Your task to perform on an android device: Open Chrome and go to the settings page Image 0: 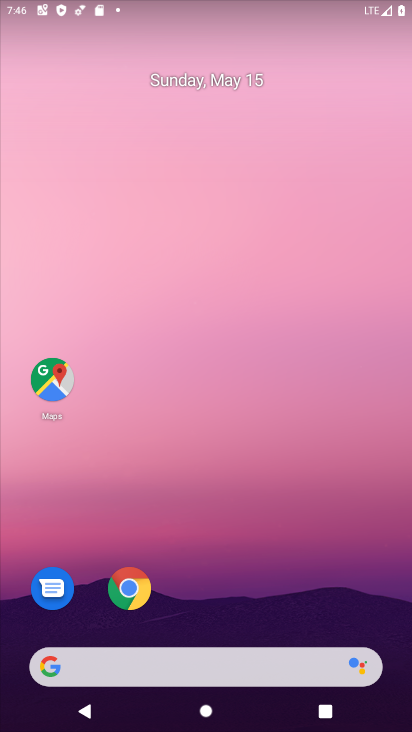
Step 0: drag from (313, 614) to (244, 39)
Your task to perform on an android device: Open Chrome and go to the settings page Image 1: 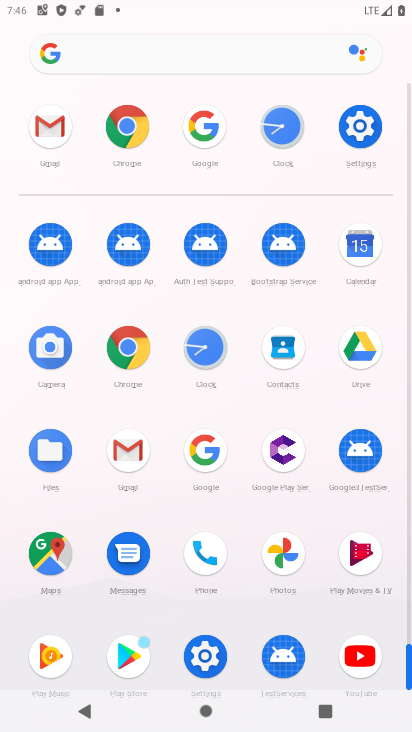
Step 1: click (125, 350)
Your task to perform on an android device: Open Chrome and go to the settings page Image 2: 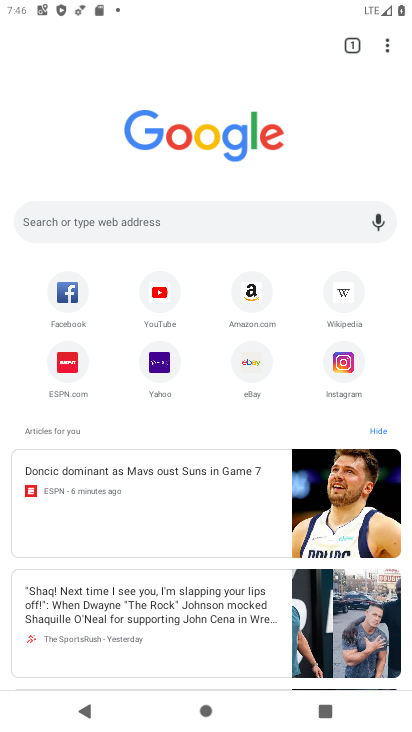
Step 2: click (387, 42)
Your task to perform on an android device: Open Chrome and go to the settings page Image 3: 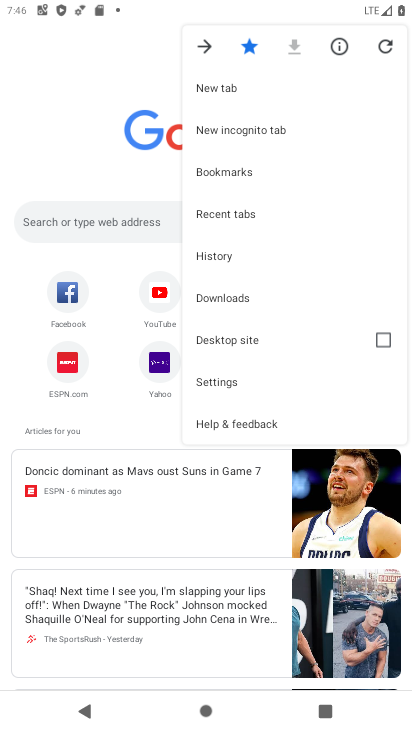
Step 3: click (265, 390)
Your task to perform on an android device: Open Chrome and go to the settings page Image 4: 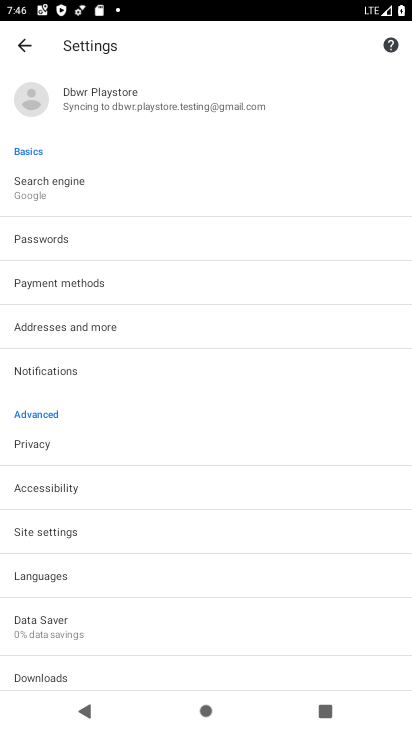
Step 4: task complete